Your task to perform on an android device: Search for "macbook pro 13 inch" on amazon.com, select the first entry, and add it to the cart. Image 0: 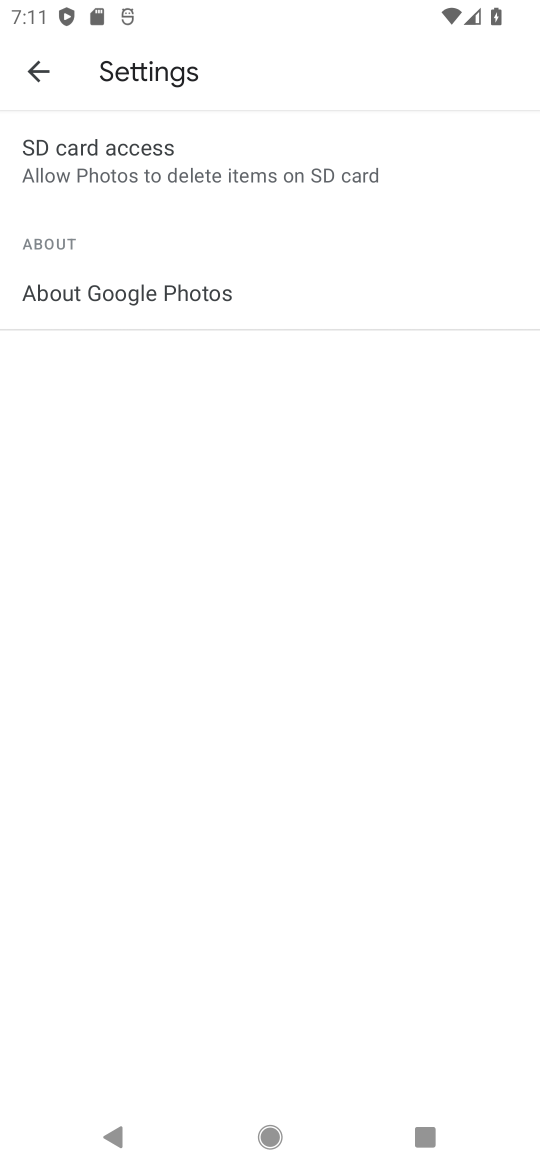
Step 0: press home button
Your task to perform on an android device: Search for "macbook pro 13 inch" on amazon.com, select the first entry, and add it to the cart. Image 1: 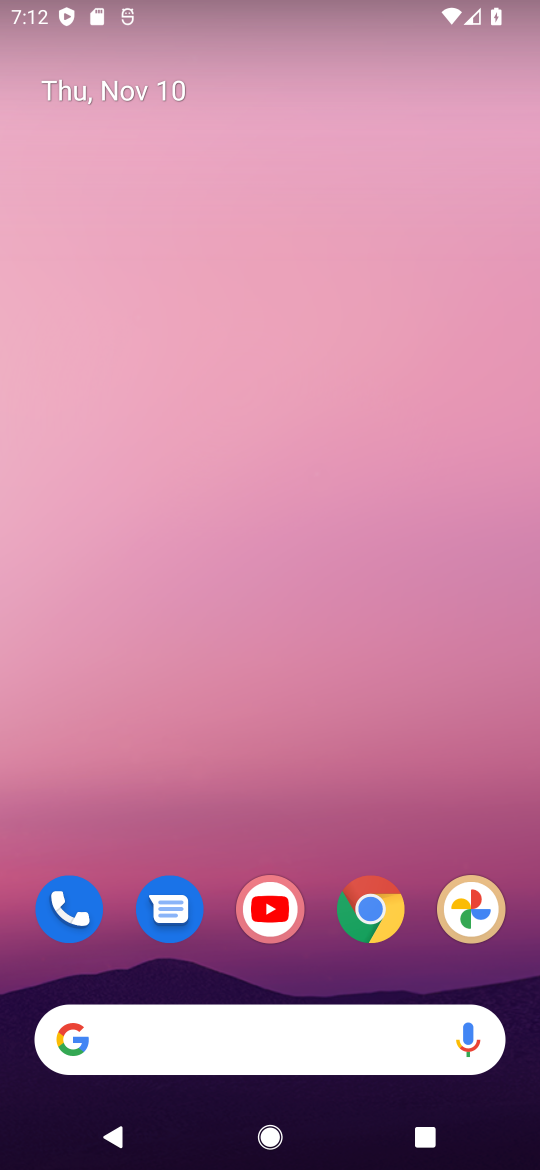
Step 1: drag from (176, 1072) to (211, 401)
Your task to perform on an android device: Search for "macbook pro 13 inch" on amazon.com, select the first entry, and add it to the cart. Image 2: 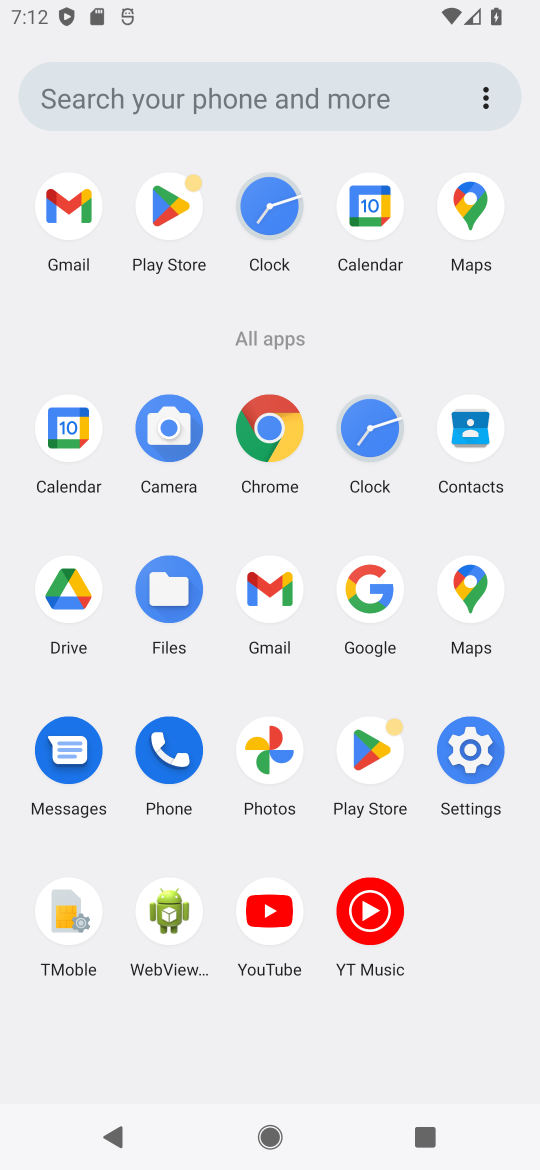
Step 2: click (381, 581)
Your task to perform on an android device: Search for "macbook pro 13 inch" on amazon.com, select the first entry, and add it to the cart. Image 3: 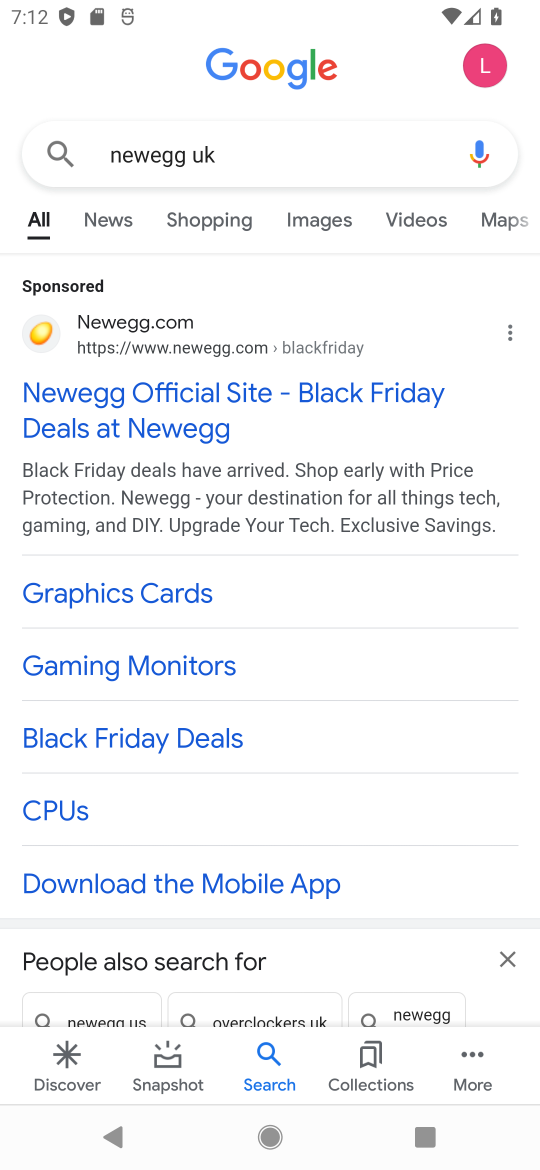
Step 3: click (269, 144)
Your task to perform on an android device: Search for "macbook pro 13 inch" on amazon.com, select the first entry, and add it to the cart. Image 4: 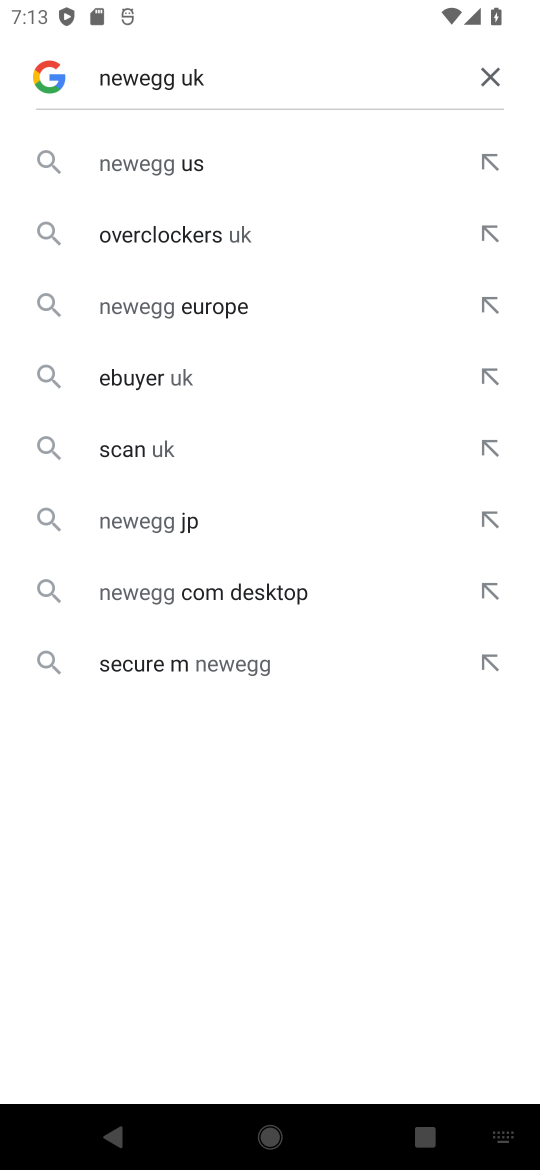
Step 4: click (498, 65)
Your task to perform on an android device: Search for "macbook pro 13 inch" on amazon.com, select the first entry, and add it to the cart. Image 5: 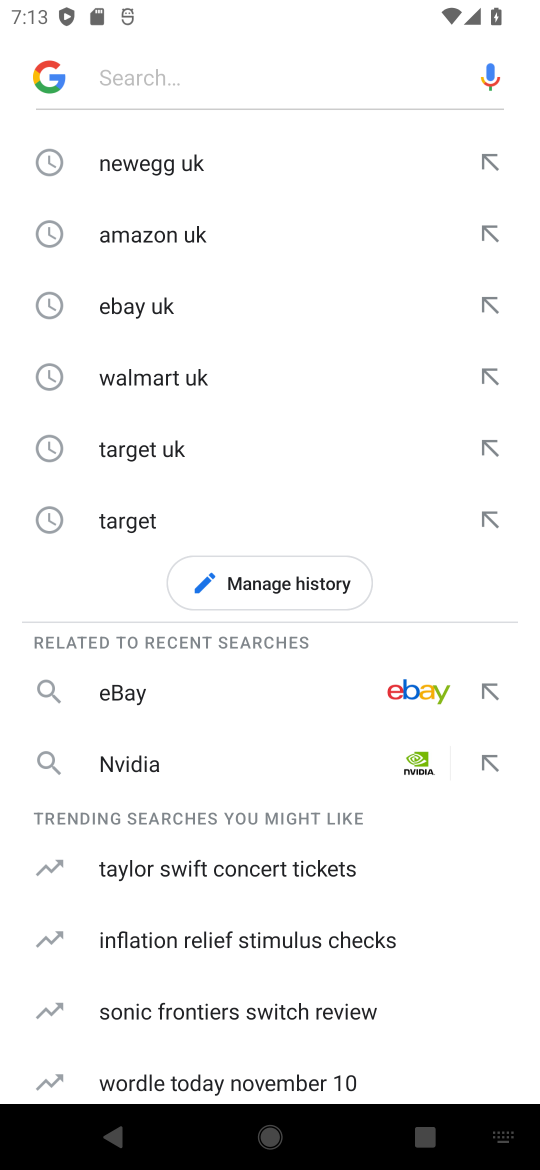
Step 5: click (234, 54)
Your task to perform on an android device: Search for "macbook pro 13 inch" on amazon.com, select the first entry, and add it to the cart. Image 6: 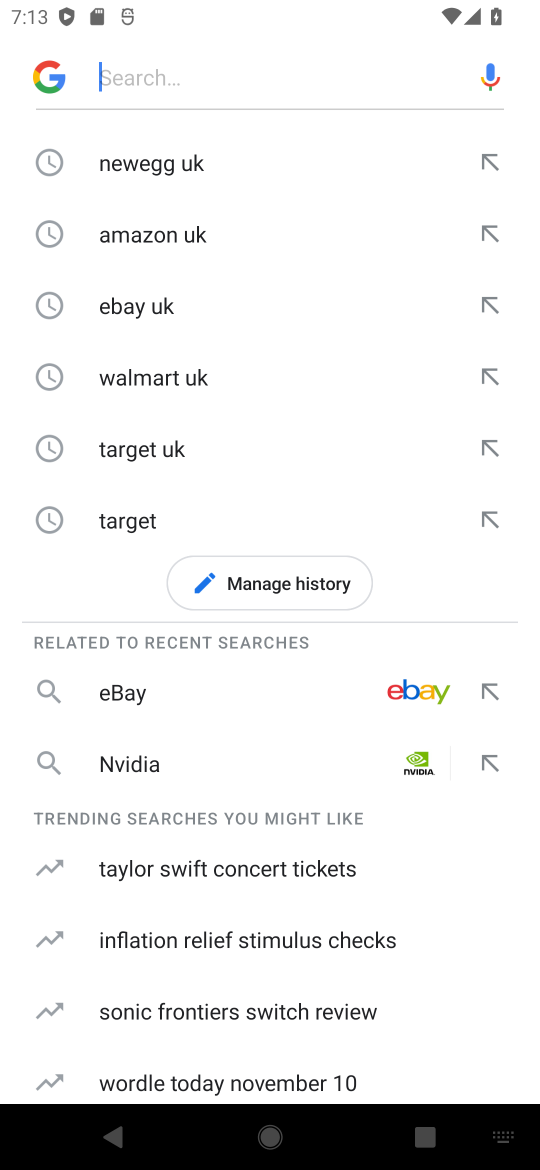
Step 6: type "amazon "
Your task to perform on an android device: Search for "macbook pro 13 inch" on amazon.com, select the first entry, and add it to the cart. Image 7: 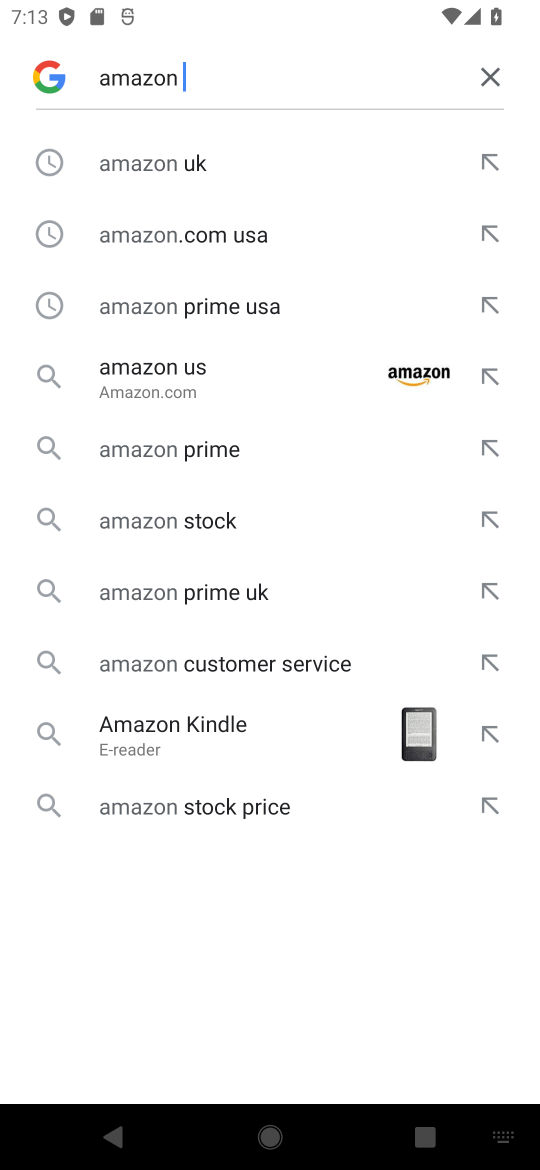
Step 7: click (174, 172)
Your task to perform on an android device: Search for "macbook pro 13 inch" on amazon.com, select the first entry, and add it to the cart. Image 8: 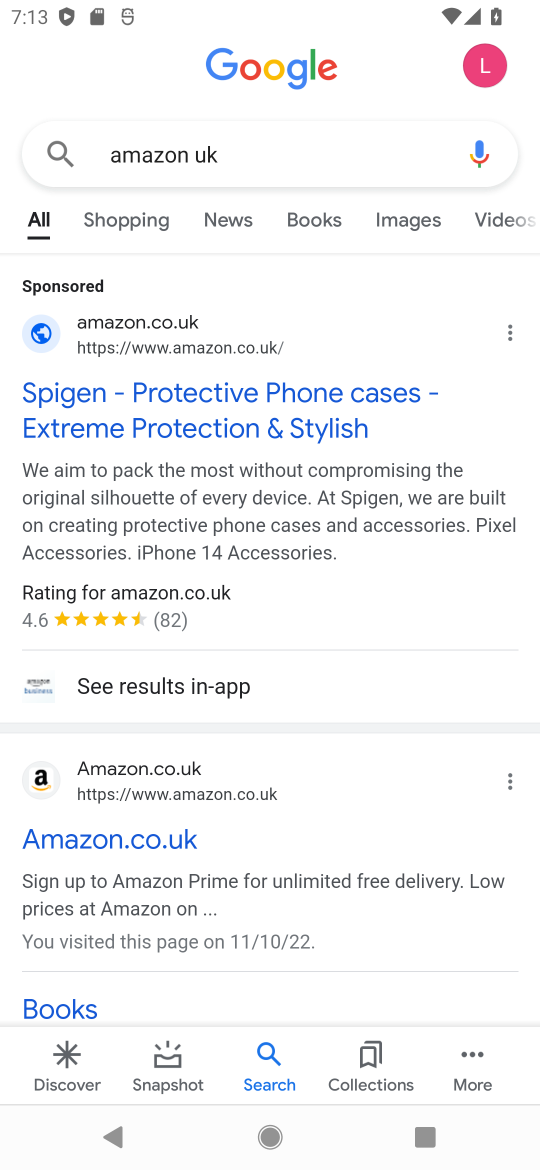
Step 8: click (42, 764)
Your task to perform on an android device: Search for "macbook pro 13 inch" on amazon.com, select the first entry, and add it to the cart. Image 9: 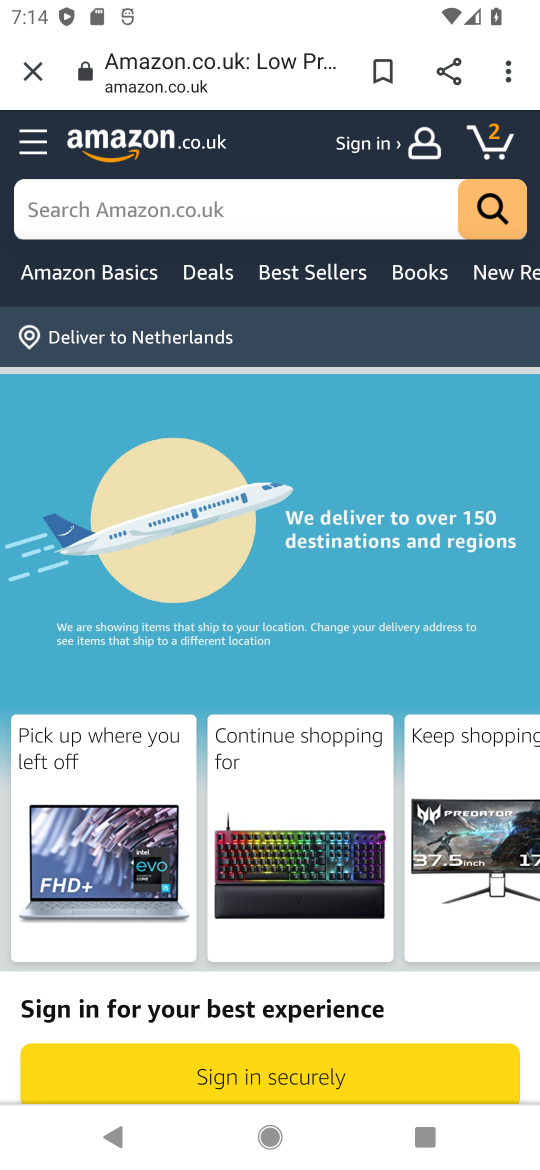
Step 9: click (195, 200)
Your task to perform on an android device: Search for "macbook pro 13 inch" on amazon.com, select the first entry, and add it to the cart. Image 10: 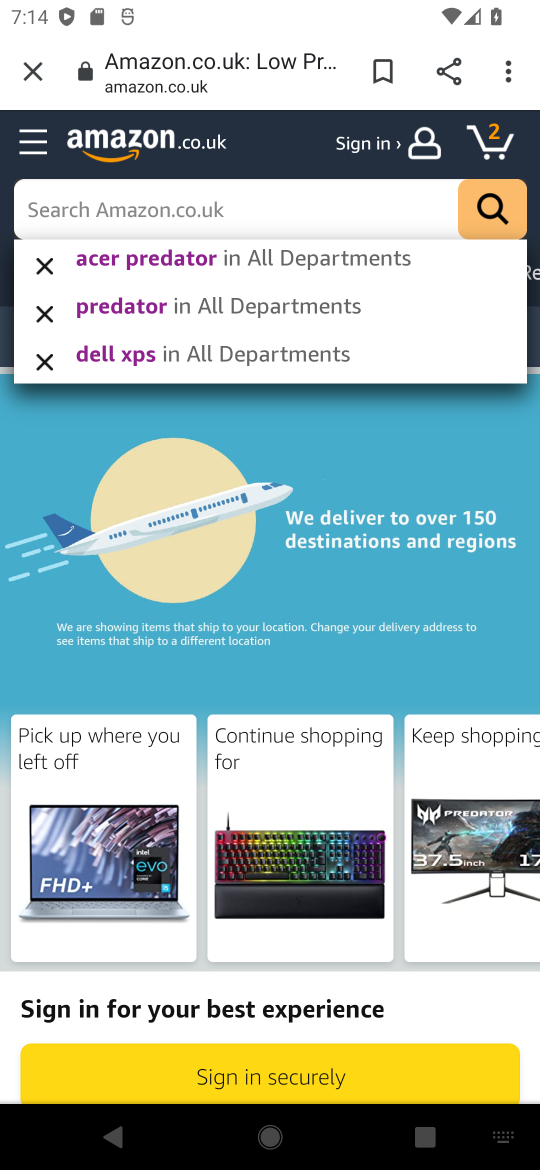
Step 10: type "macbook pro "
Your task to perform on an android device: Search for "macbook pro 13 inch" on amazon.com, select the first entry, and add it to the cart. Image 11: 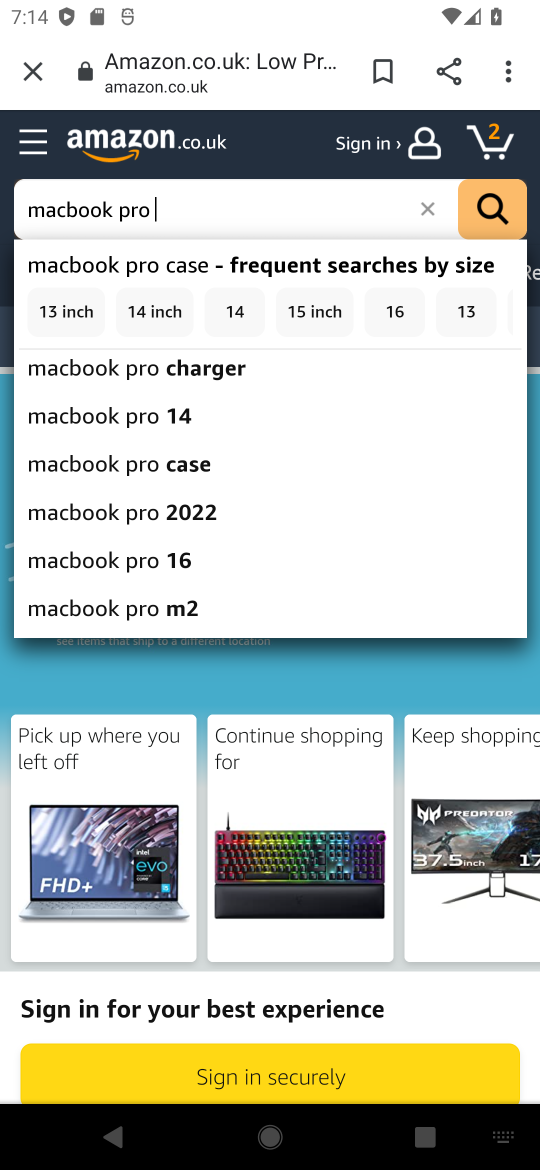
Step 11: click (63, 309)
Your task to perform on an android device: Search for "macbook pro 13 inch" on amazon.com, select the first entry, and add it to the cart. Image 12: 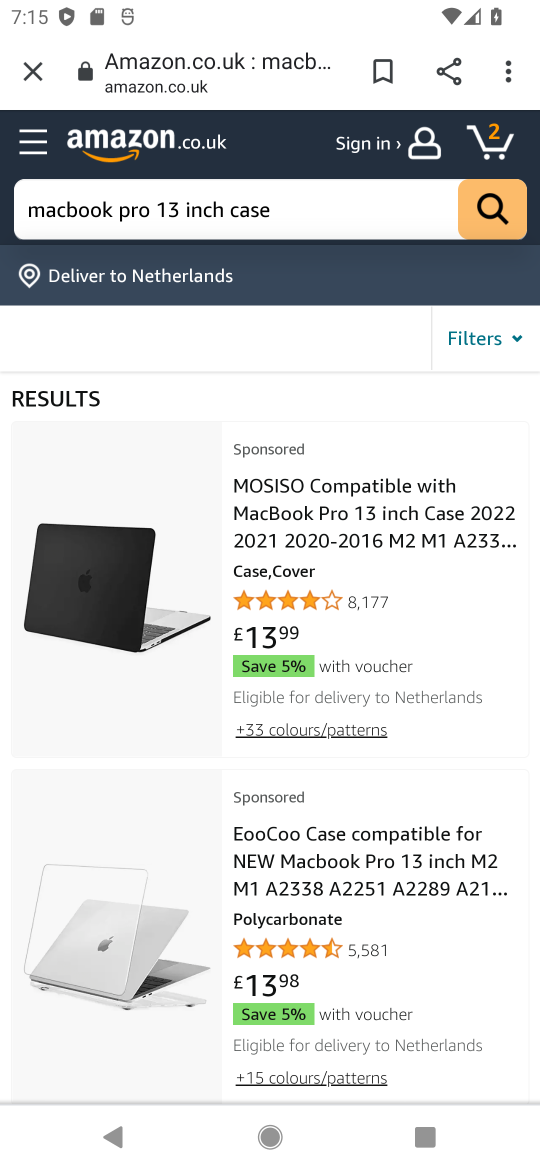
Step 12: click (419, 853)
Your task to perform on an android device: Search for "macbook pro 13 inch" on amazon.com, select the first entry, and add it to the cart. Image 13: 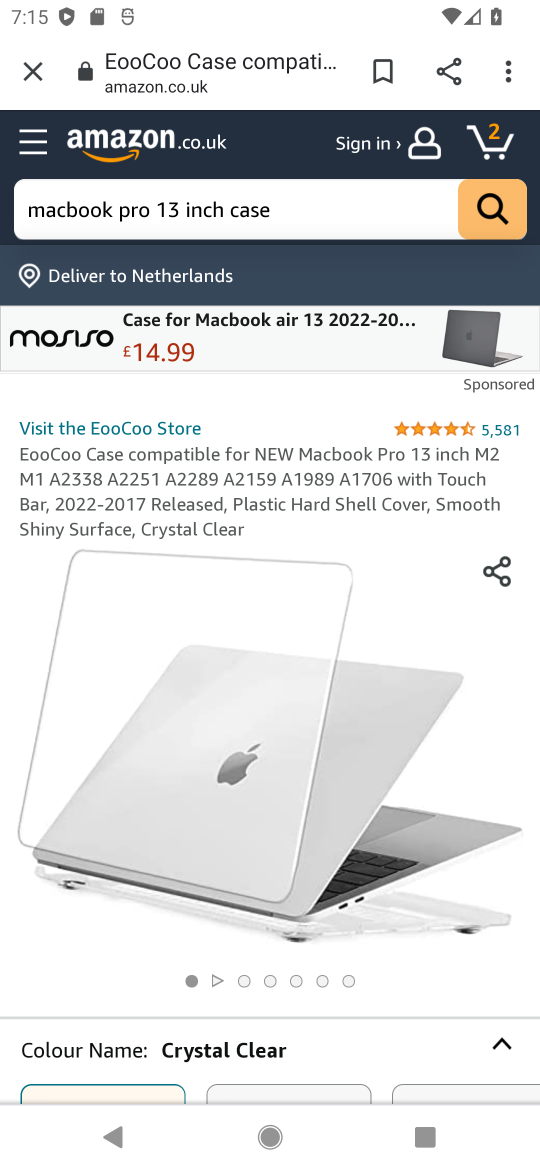
Step 13: drag from (322, 943) to (356, 295)
Your task to perform on an android device: Search for "macbook pro 13 inch" on amazon.com, select the first entry, and add it to the cart. Image 14: 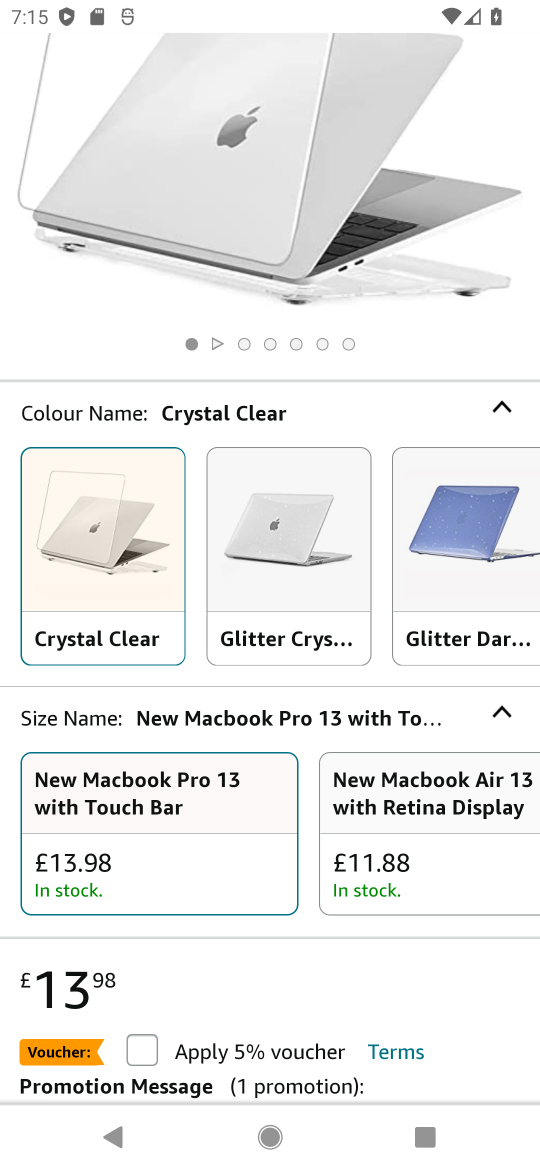
Step 14: drag from (286, 990) to (323, 351)
Your task to perform on an android device: Search for "macbook pro 13 inch" on amazon.com, select the first entry, and add it to the cart. Image 15: 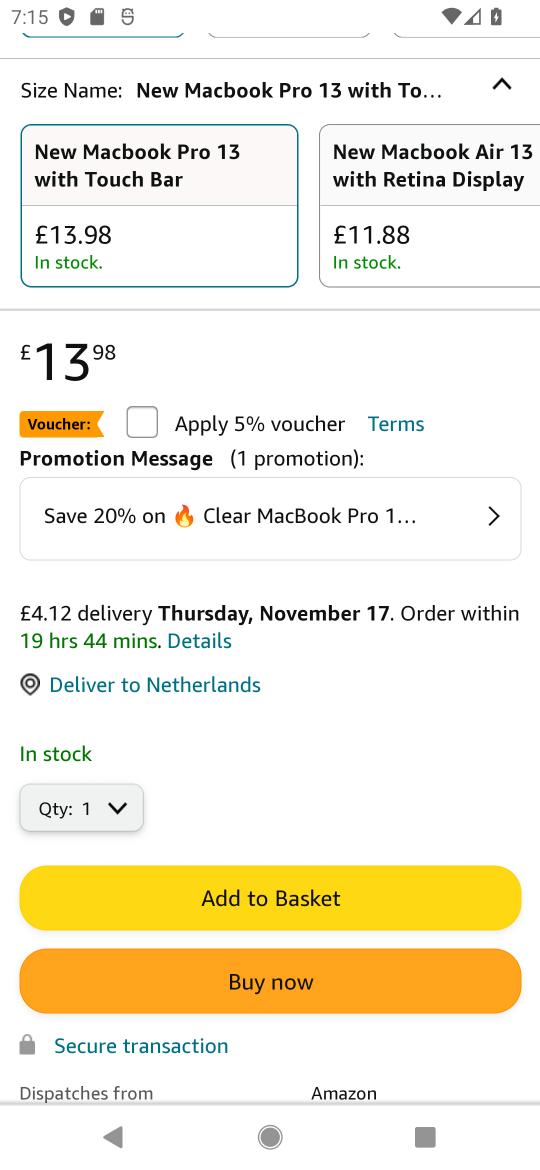
Step 15: click (290, 879)
Your task to perform on an android device: Search for "macbook pro 13 inch" on amazon.com, select the first entry, and add it to the cart. Image 16: 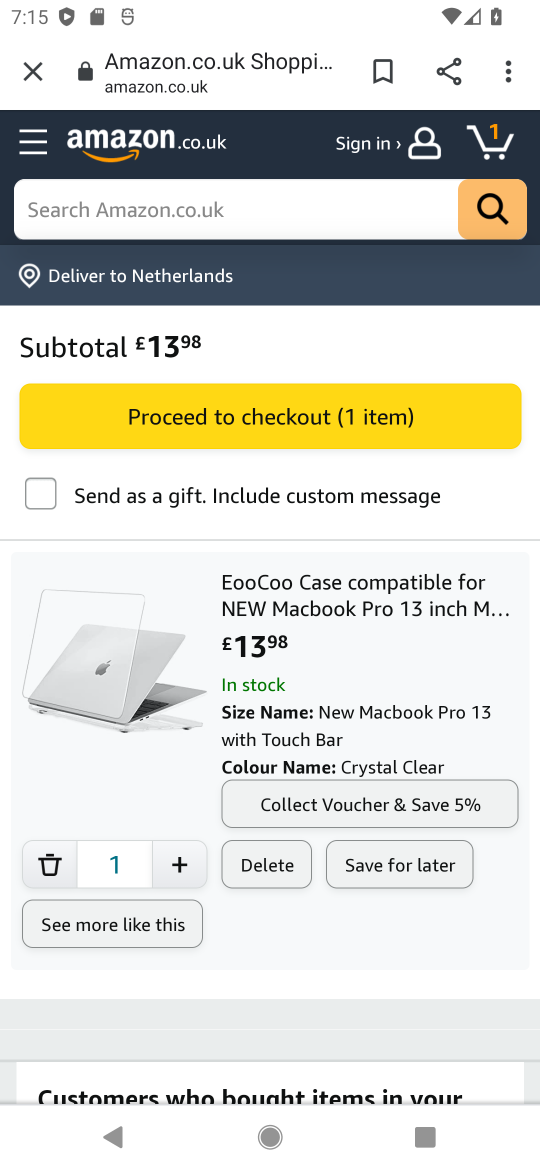
Step 16: task complete